Your task to perform on an android device: change your default location settings in chrome Image 0: 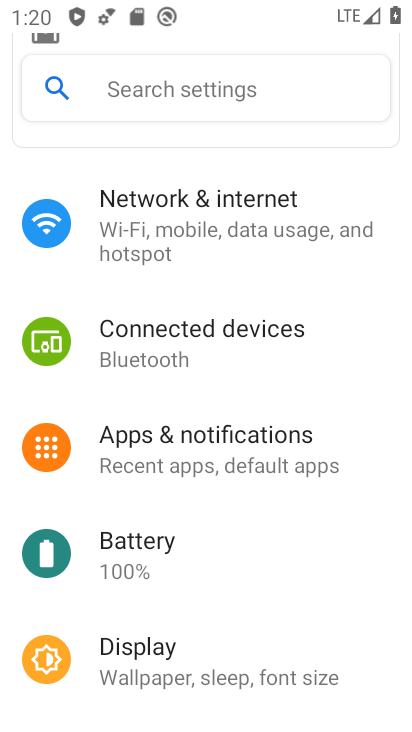
Step 0: press home button
Your task to perform on an android device: change your default location settings in chrome Image 1: 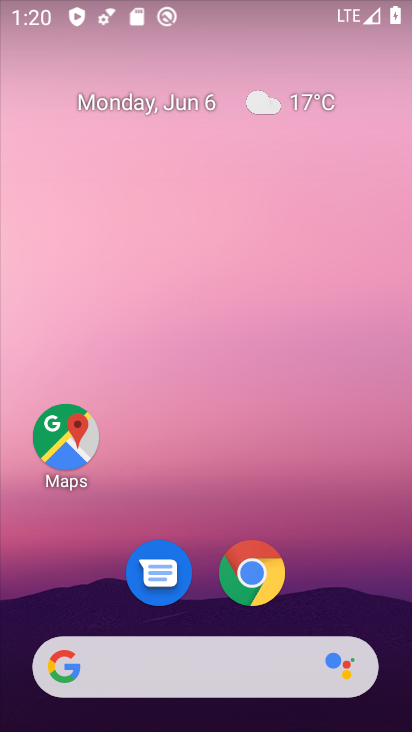
Step 1: drag from (365, 595) to (343, 144)
Your task to perform on an android device: change your default location settings in chrome Image 2: 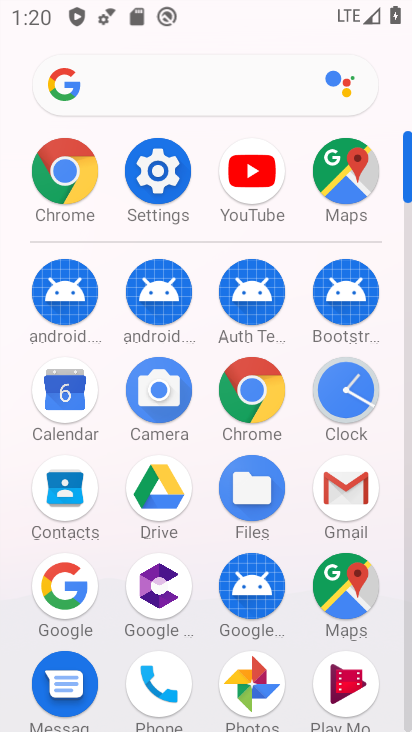
Step 2: click (272, 404)
Your task to perform on an android device: change your default location settings in chrome Image 3: 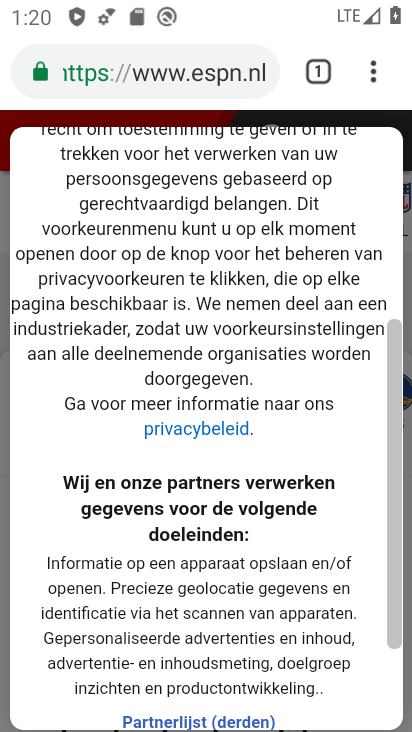
Step 3: click (373, 80)
Your task to perform on an android device: change your default location settings in chrome Image 4: 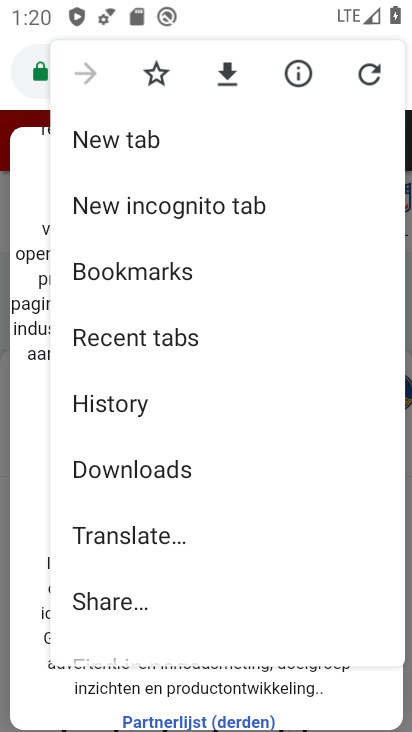
Step 4: drag from (314, 398) to (317, 288)
Your task to perform on an android device: change your default location settings in chrome Image 5: 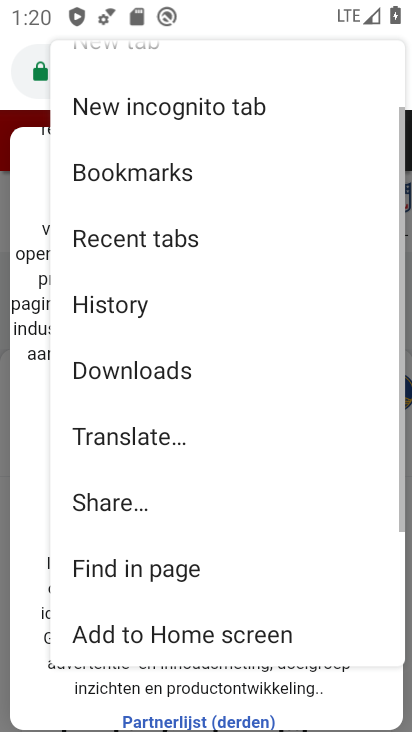
Step 5: drag from (277, 406) to (281, 278)
Your task to perform on an android device: change your default location settings in chrome Image 6: 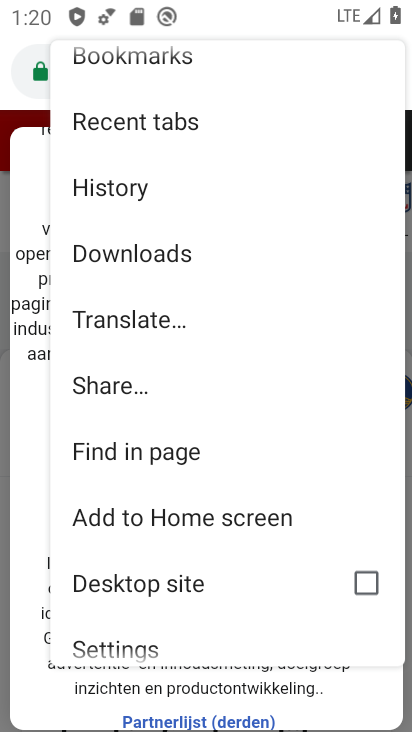
Step 6: drag from (298, 446) to (314, 286)
Your task to perform on an android device: change your default location settings in chrome Image 7: 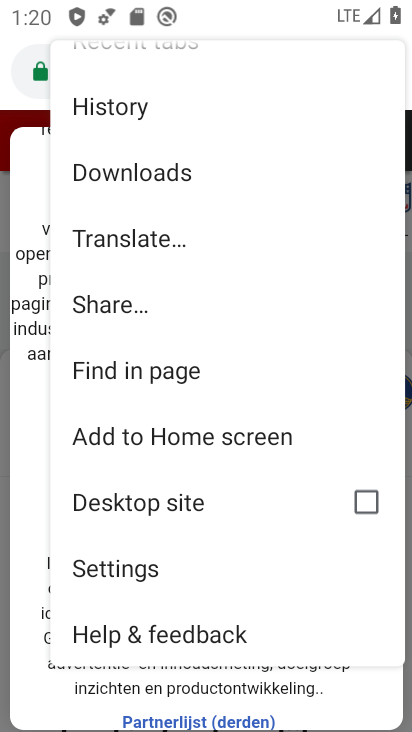
Step 7: click (173, 578)
Your task to perform on an android device: change your default location settings in chrome Image 8: 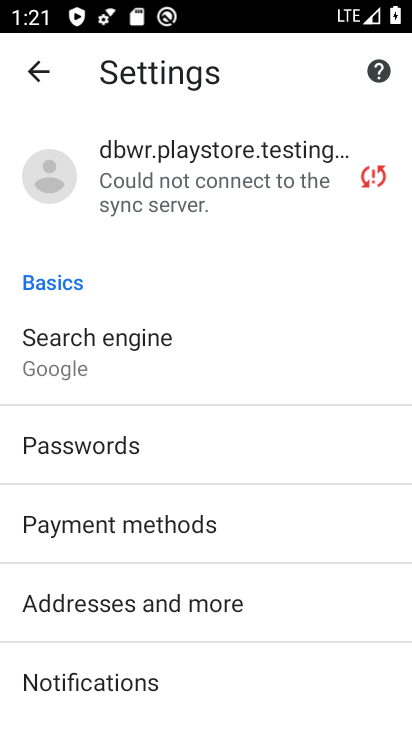
Step 8: drag from (344, 636) to (345, 526)
Your task to perform on an android device: change your default location settings in chrome Image 9: 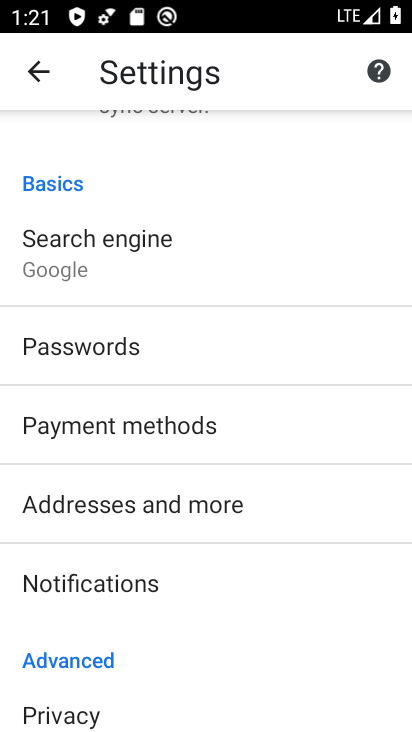
Step 9: drag from (327, 629) to (334, 480)
Your task to perform on an android device: change your default location settings in chrome Image 10: 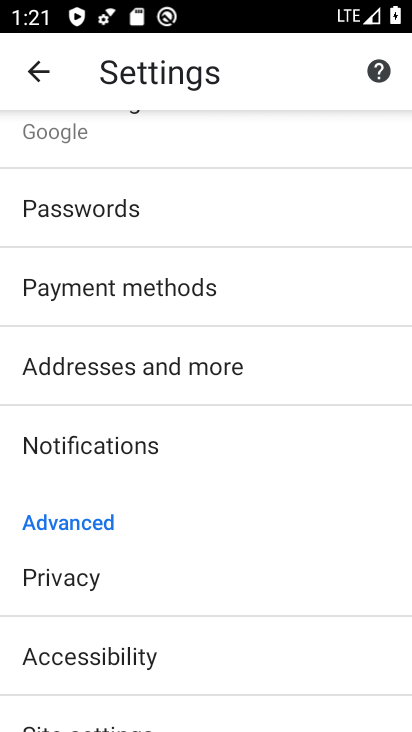
Step 10: drag from (323, 604) to (329, 447)
Your task to perform on an android device: change your default location settings in chrome Image 11: 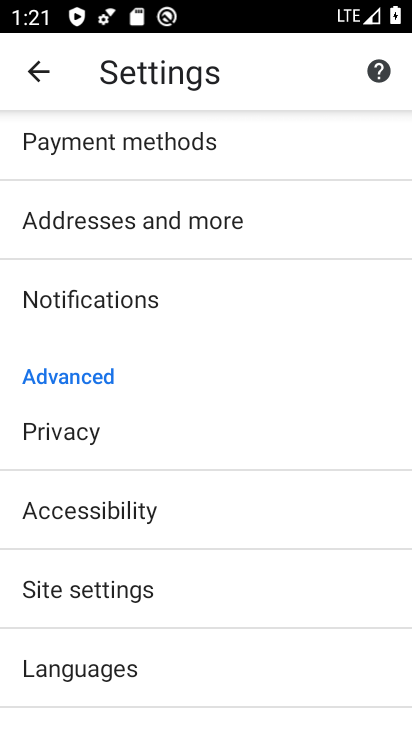
Step 11: click (291, 580)
Your task to perform on an android device: change your default location settings in chrome Image 12: 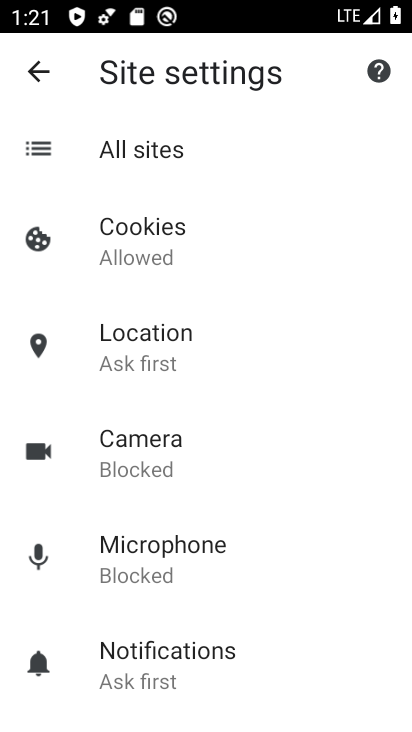
Step 12: drag from (318, 542) to (344, 400)
Your task to perform on an android device: change your default location settings in chrome Image 13: 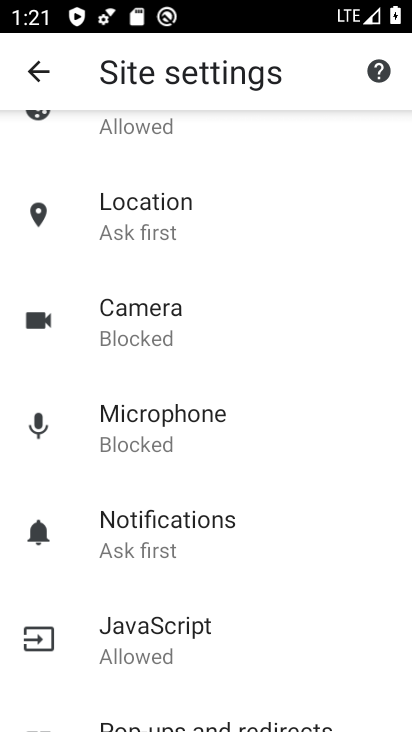
Step 13: drag from (327, 566) to (344, 415)
Your task to perform on an android device: change your default location settings in chrome Image 14: 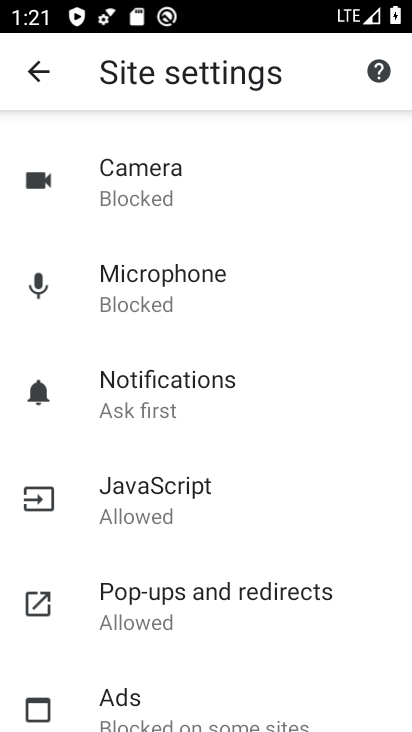
Step 14: drag from (331, 308) to (327, 466)
Your task to perform on an android device: change your default location settings in chrome Image 15: 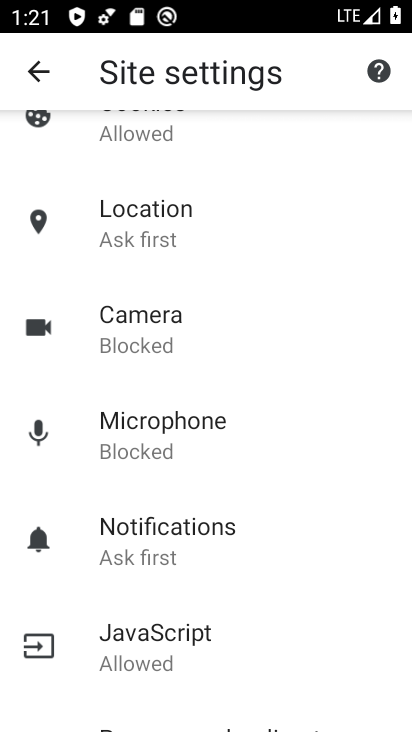
Step 15: click (216, 229)
Your task to perform on an android device: change your default location settings in chrome Image 16: 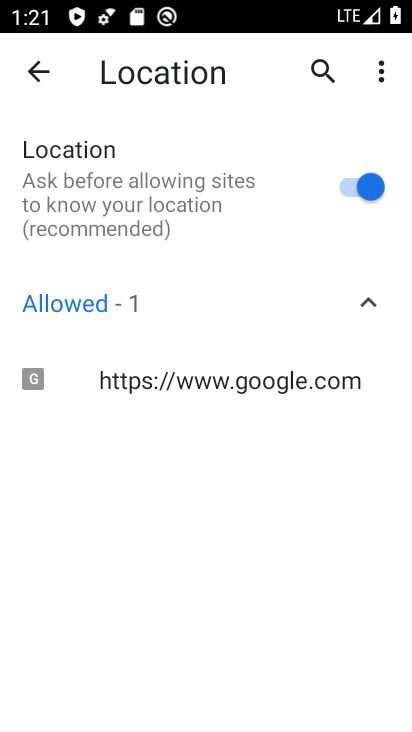
Step 16: click (366, 184)
Your task to perform on an android device: change your default location settings in chrome Image 17: 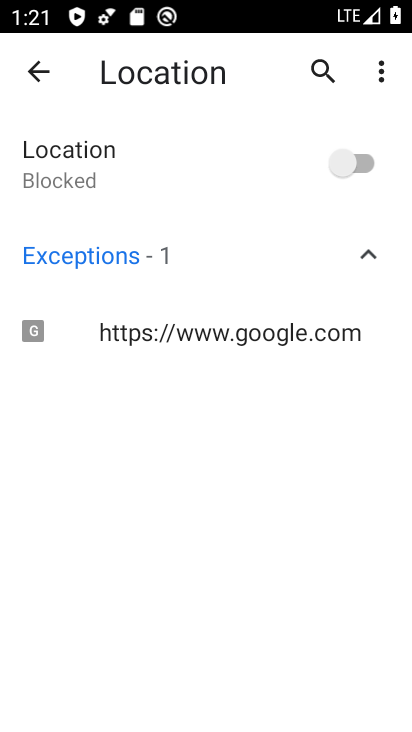
Step 17: task complete